Your task to perform on an android device: remove spam from my inbox in the gmail app Image 0: 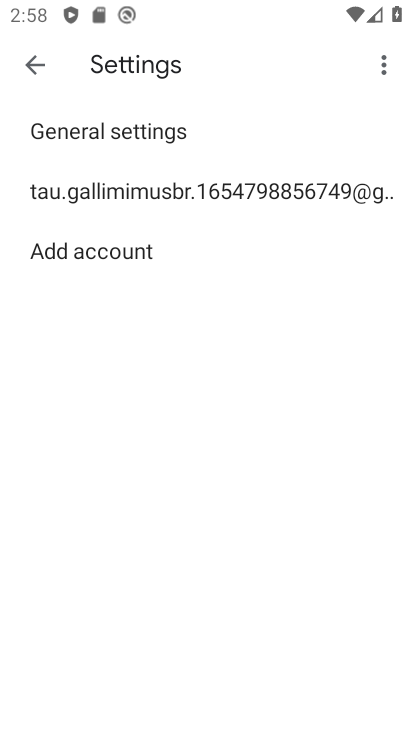
Step 0: click (34, 66)
Your task to perform on an android device: remove spam from my inbox in the gmail app Image 1: 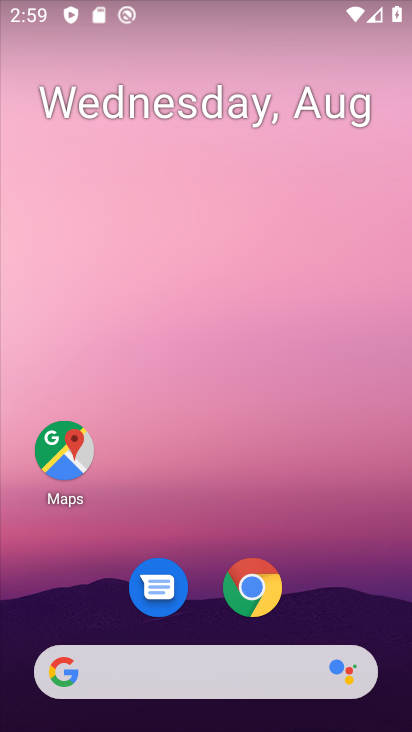
Step 1: drag from (173, 408) to (282, 93)
Your task to perform on an android device: remove spam from my inbox in the gmail app Image 2: 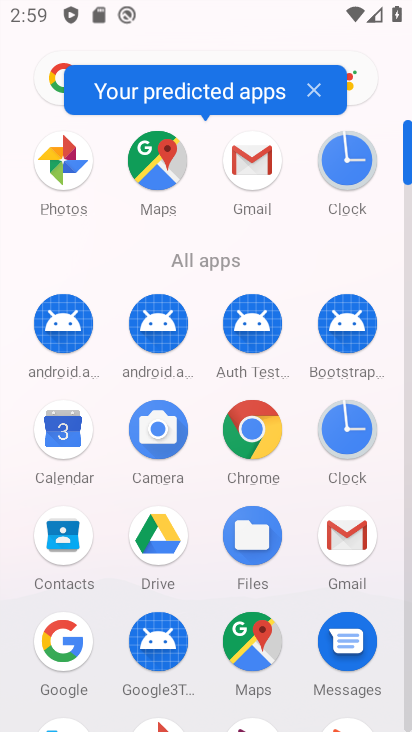
Step 2: click (360, 534)
Your task to perform on an android device: remove spam from my inbox in the gmail app Image 3: 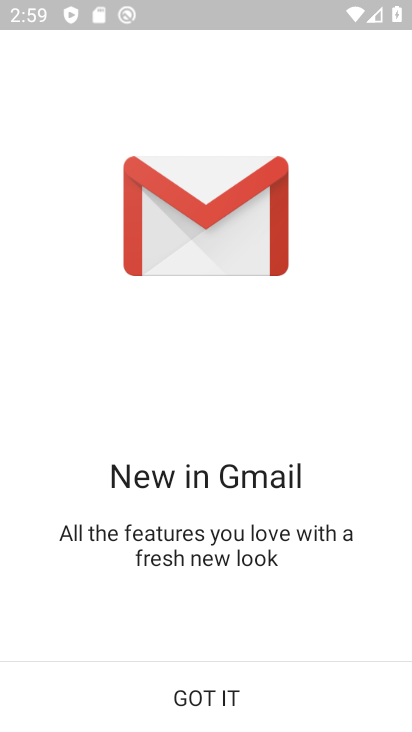
Step 3: click (210, 689)
Your task to perform on an android device: remove spam from my inbox in the gmail app Image 4: 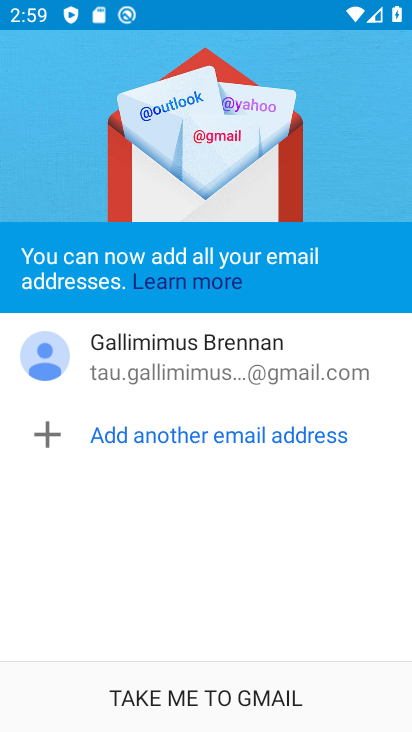
Step 4: click (197, 700)
Your task to perform on an android device: remove spam from my inbox in the gmail app Image 5: 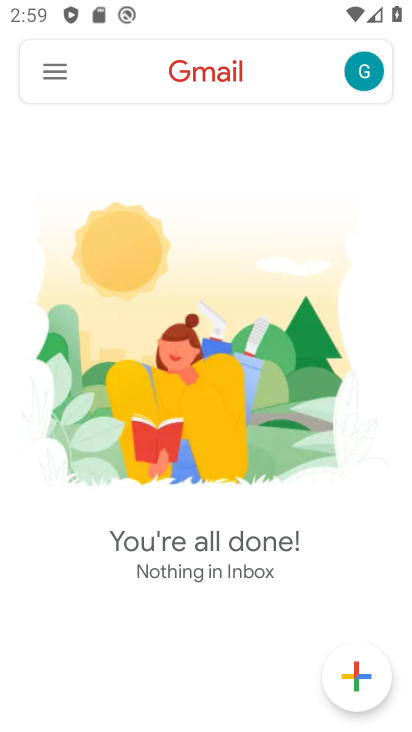
Step 5: click (54, 75)
Your task to perform on an android device: remove spam from my inbox in the gmail app Image 6: 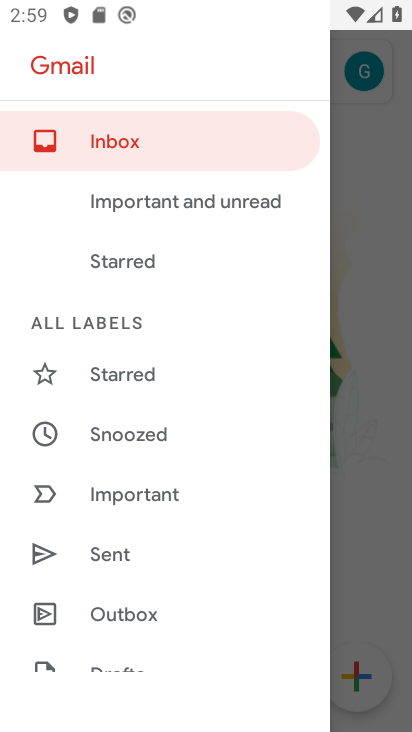
Step 6: drag from (181, 587) to (284, 84)
Your task to perform on an android device: remove spam from my inbox in the gmail app Image 7: 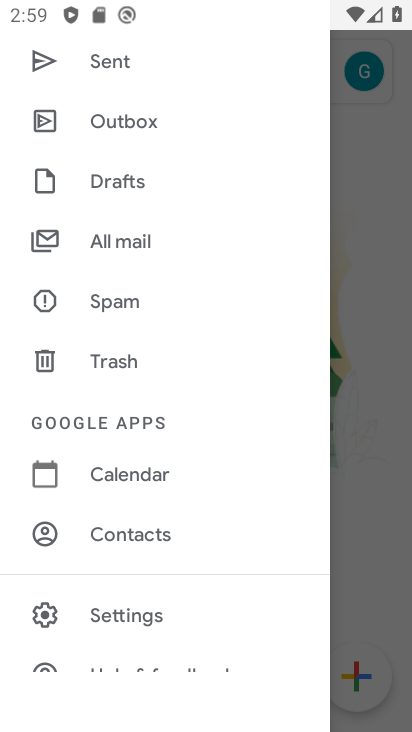
Step 7: click (133, 294)
Your task to perform on an android device: remove spam from my inbox in the gmail app Image 8: 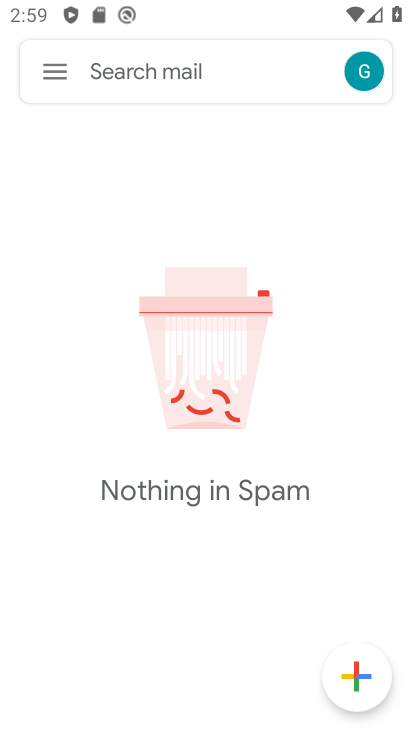
Step 8: task complete